Your task to perform on an android device: delete the emails in spam in the gmail app Image 0: 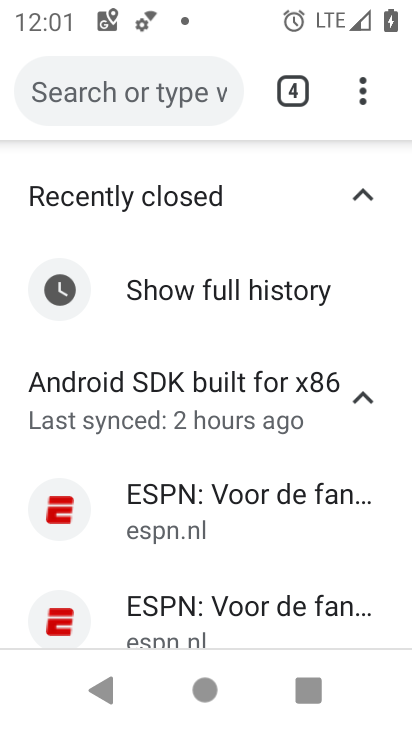
Step 0: press home button
Your task to perform on an android device: delete the emails in spam in the gmail app Image 1: 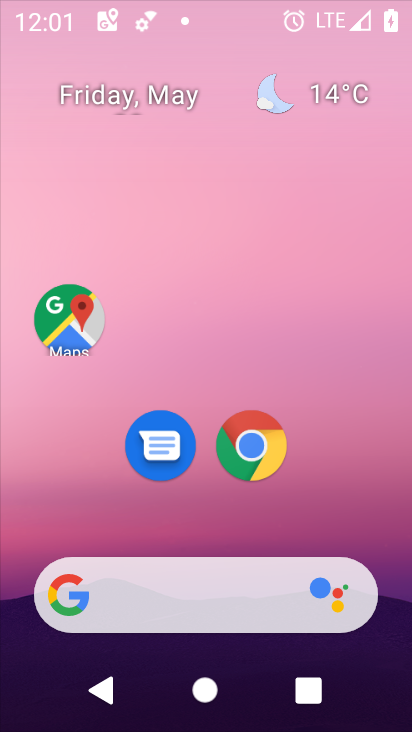
Step 1: drag from (285, 528) to (240, 159)
Your task to perform on an android device: delete the emails in spam in the gmail app Image 2: 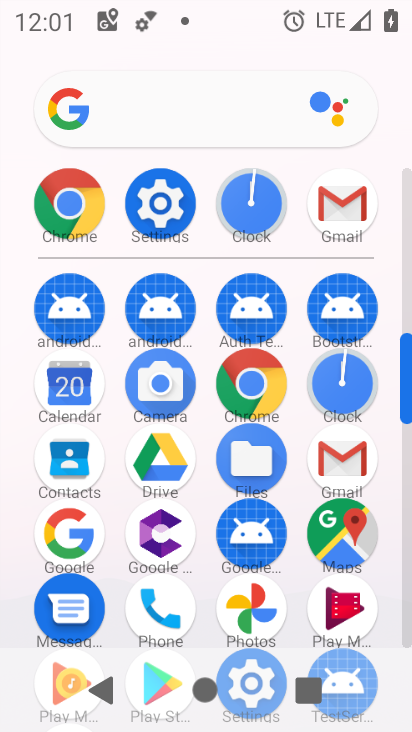
Step 2: click (341, 471)
Your task to perform on an android device: delete the emails in spam in the gmail app Image 3: 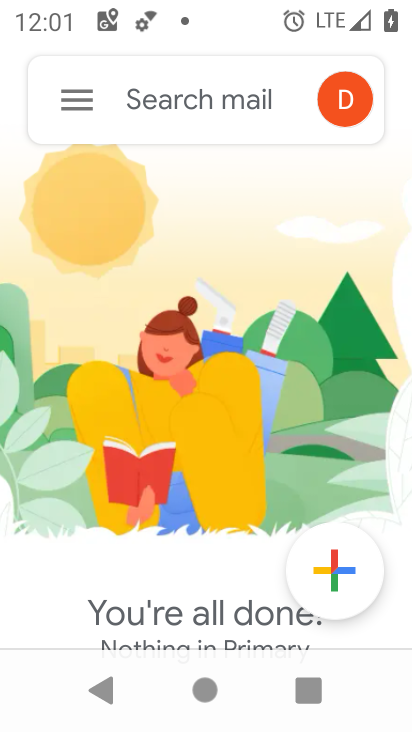
Step 3: click (79, 93)
Your task to perform on an android device: delete the emails in spam in the gmail app Image 4: 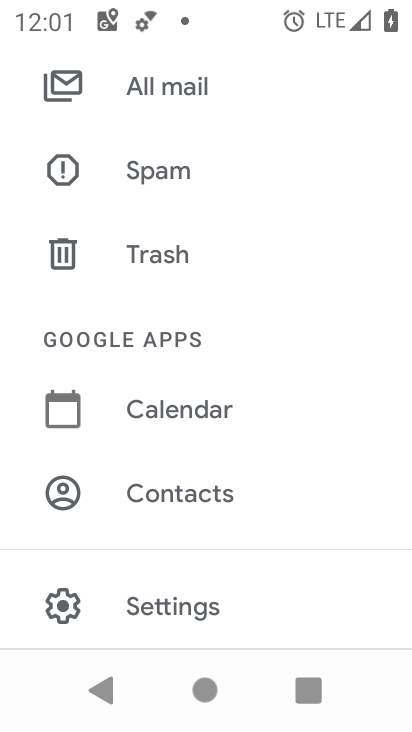
Step 4: click (180, 183)
Your task to perform on an android device: delete the emails in spam in the gmail app Image 5: 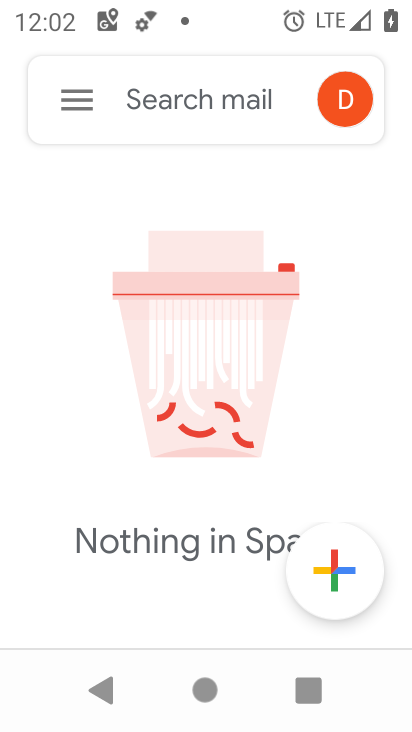
Step 5: task complete